Your task to perform on an android device: change timer sound Image 0: 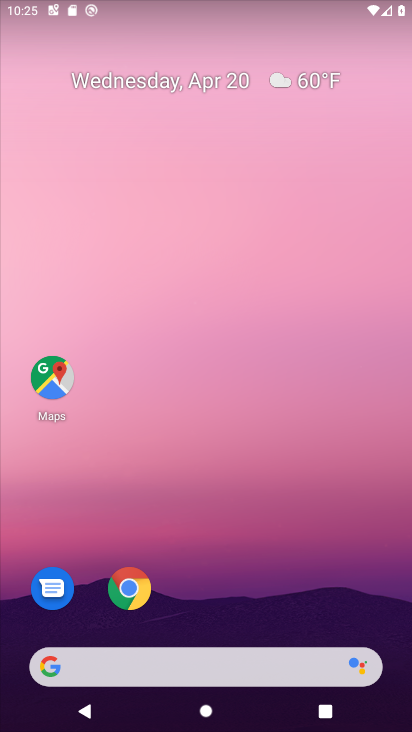
Step 0: drag from (239, 557) to (242, 60)
Your task to perform on an android device: change timer sound Image 1: 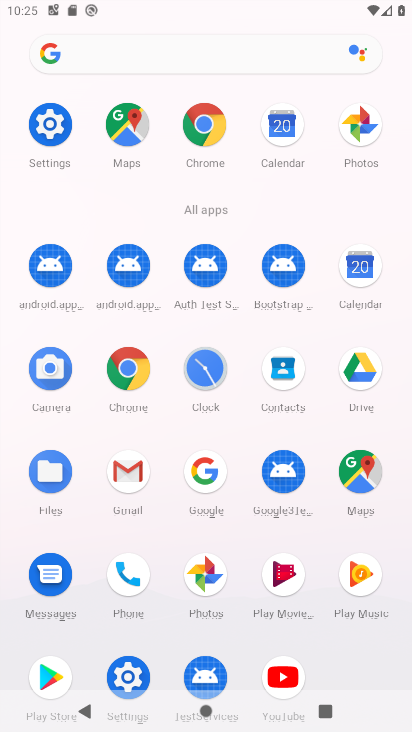
Step 1: click (205, 377)
Your task to perform on an android device: change timer sound Image 2: 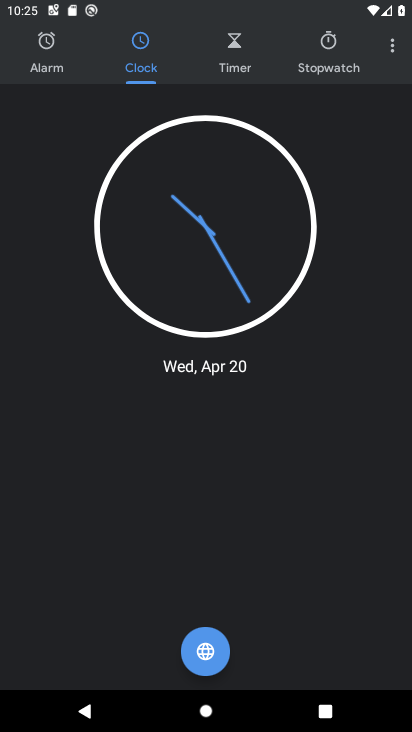
Step 2: click (390, 46)
Your task to perform on an android device: change timer sound Image 3: 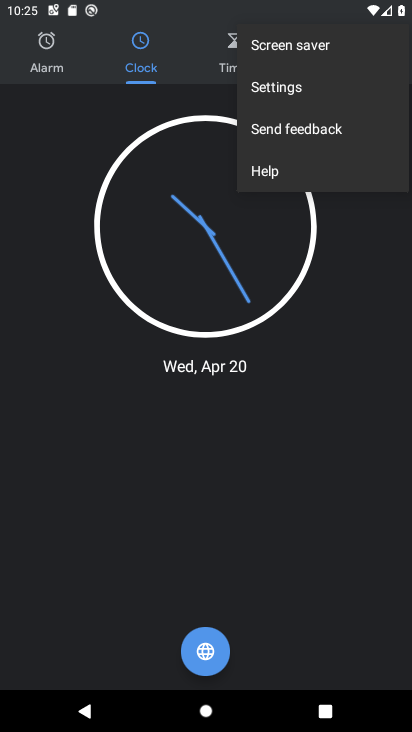
Step 3: click (289, 94)
Your task to perform on an android device: change timer sound Image 4: 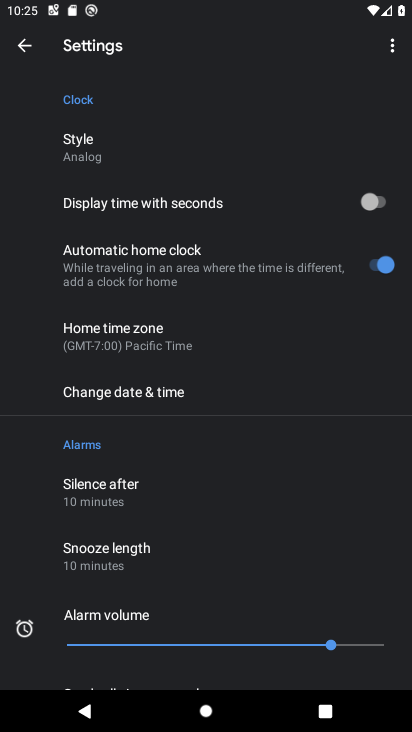
Step 4: drag from (194, 546) to (192, 179)
Your task to perform on an android device: change timer sound Image 5: 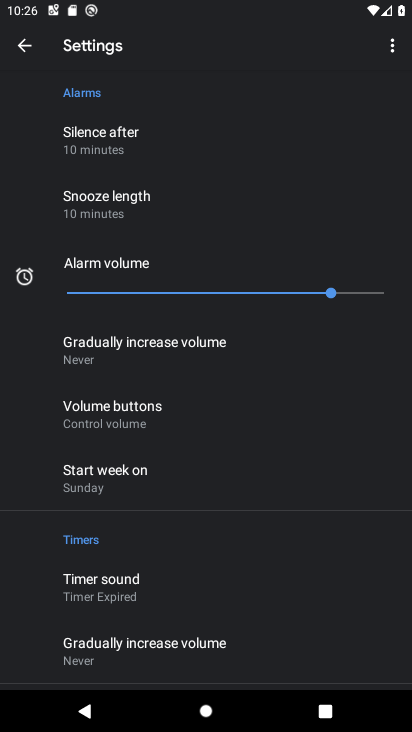
Step 5: click (134, 580)
Your task to perform on an android device: change timer sound Image 6: 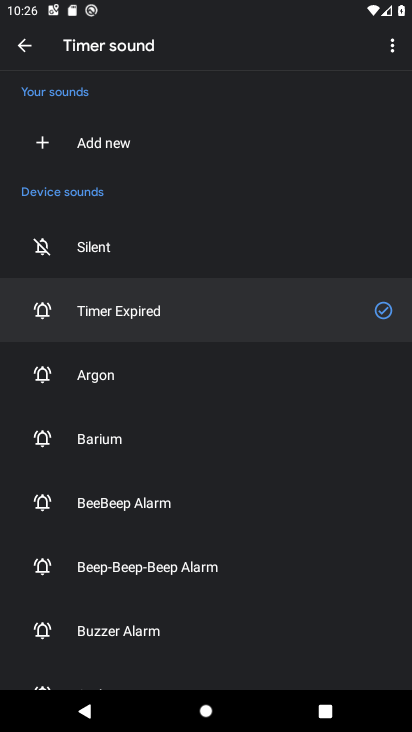
Step 6: click (121, 372)
Your task to perform on an android device: change timer sound Image 7: 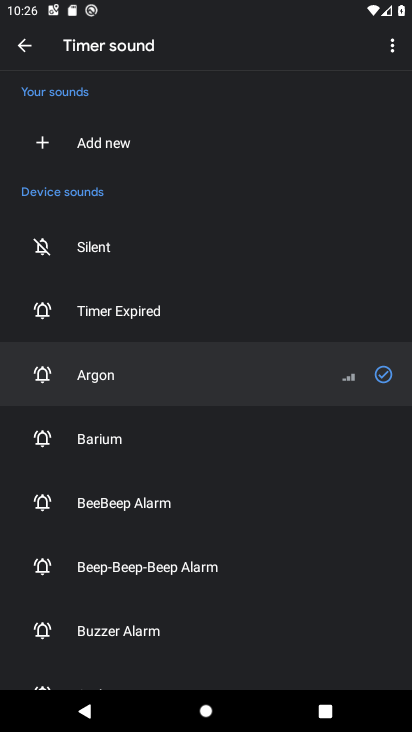
Step 7: task complete